Your task to perform on an android device: Search for vegetarian restaurants on Maps Image 0: 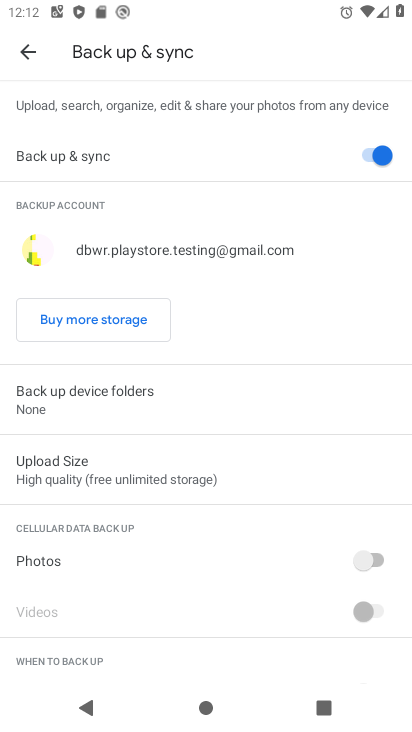
Step 0: press home button
Your task to perform on an android device: Search for vegetarian restaurants on Maps Image 1: 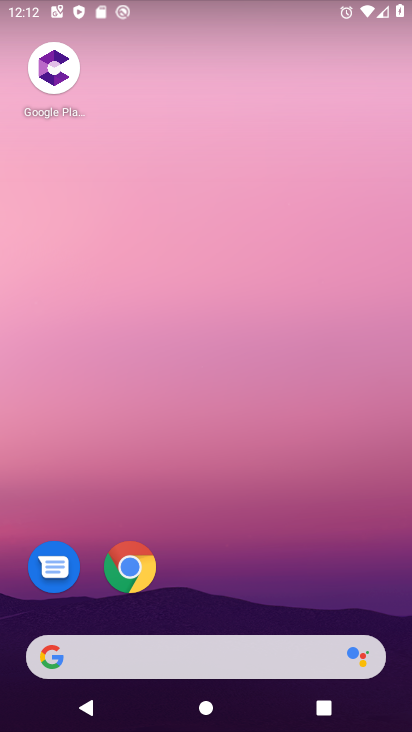
Step 1: drag from (30, 445) to (408, 395)
Your task to perform on an android device: Search for vegetarian restaurants on Maps Image 2: 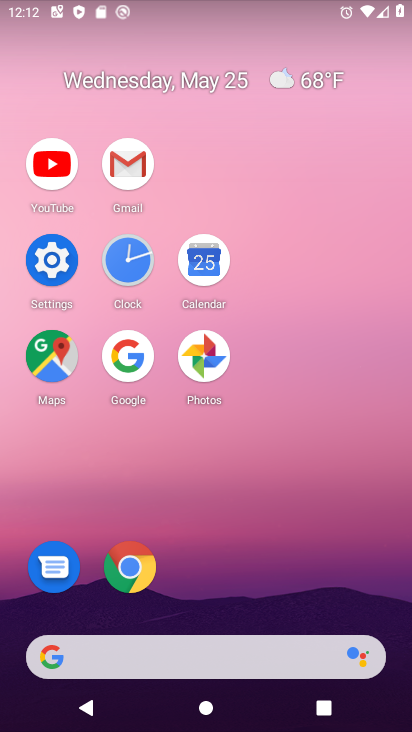
Step 2: drag from (21, 446) to (342, 459)
Your task to perform on an android device: Search for vegetarian restaurants on Maps Image 3: 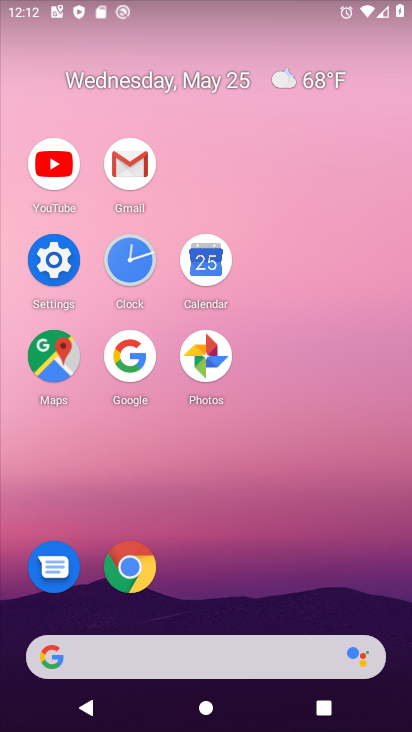
Step 3: click (54, 359)
Your task to perform on an android device: Search for vegetarian restaurants on Maps Image 4: 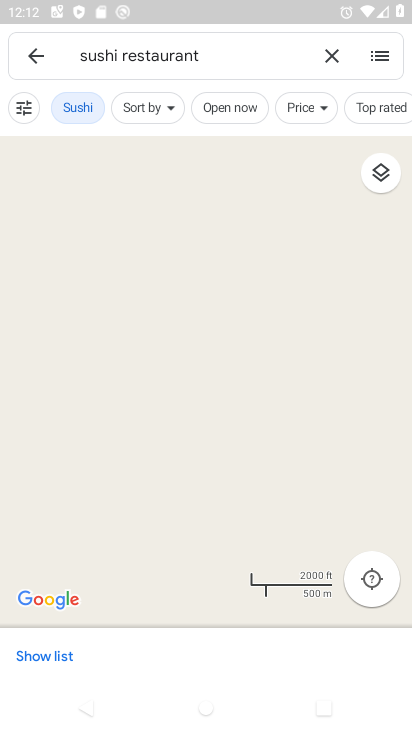
Step 4: click (255, 65)
Your task to perform on an android device: Search for vegetarian restaurants on Maps Image 5: 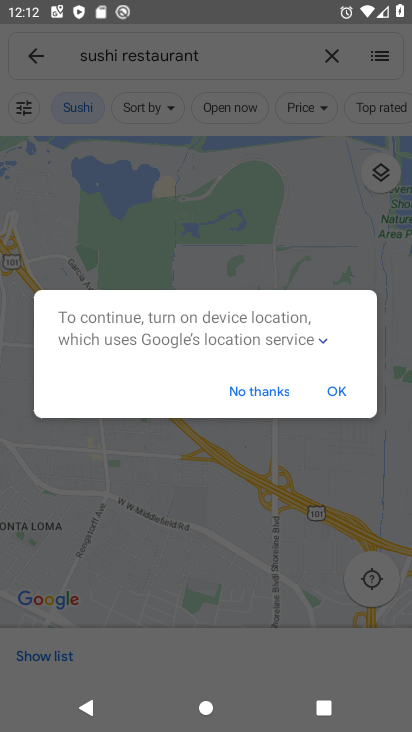
Step 5: click (336, 54)
Your task to perform on an android device: Search for vegetarian restaurants on Maps Image 6: 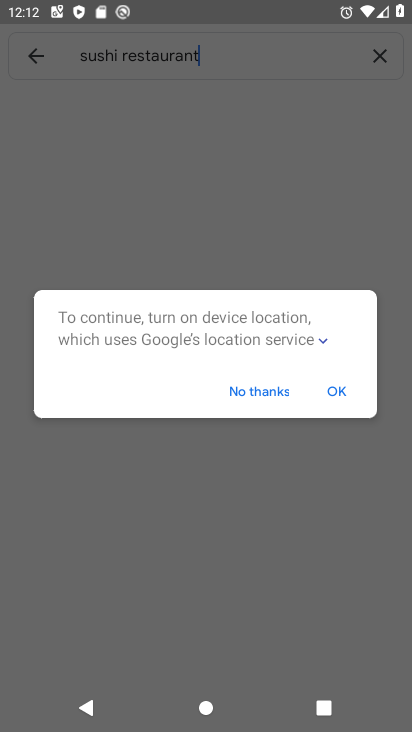
Step 6: click (333, 391)
Your task to perform on an android device: Search for vegetarian restaurants on Maps Image 7: 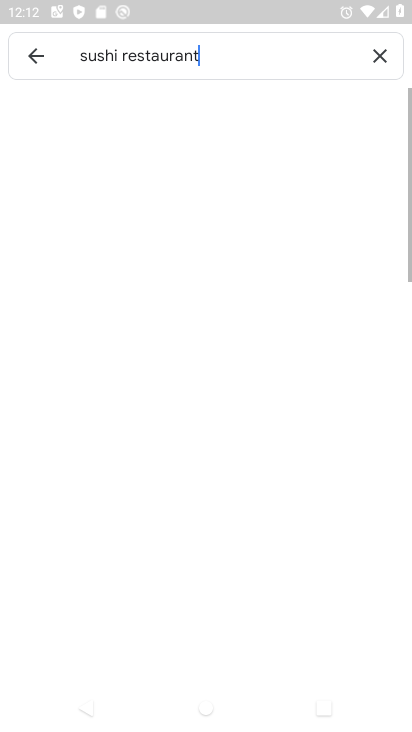
Step 7: click (376, 66)
Your task to perform on an android device: Search for vegetarian restaurants on Maps Image 8: 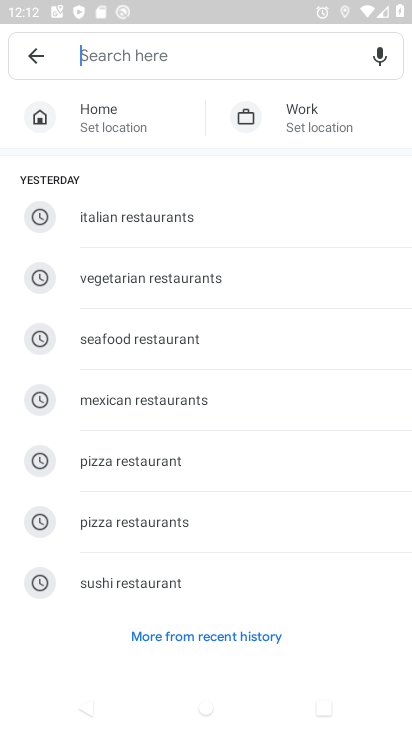
Step 8: click (235, 280)
Your task to perform on an android device: Search for vegetarian restaurants on Maps Image 9: 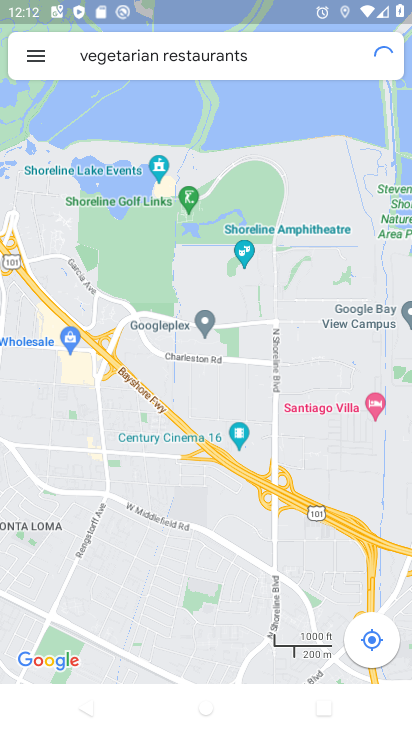
Step 9: task complete